Your task to perform on an android device: move an email to a new category in the gmail app Image 0: 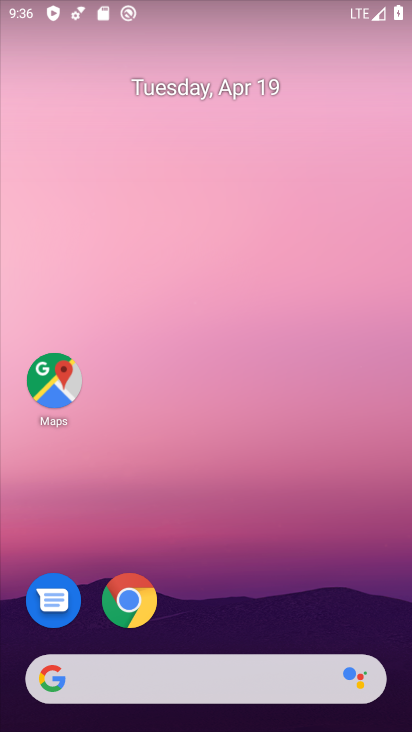
Step 0: drag from (387, 604) to (347, 117)
Your task to perform on an android device: move an email to a new category in the gmail app Image 1: 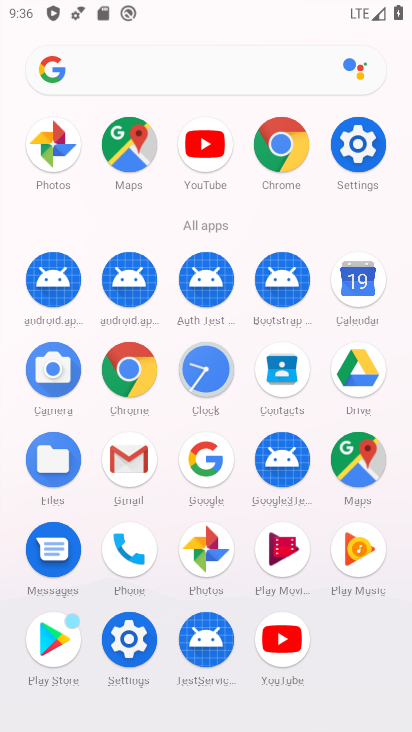
Step 1: click (138, 455)
Your task to perform on an android device: move an email to a new category in the gmail app Image 2: 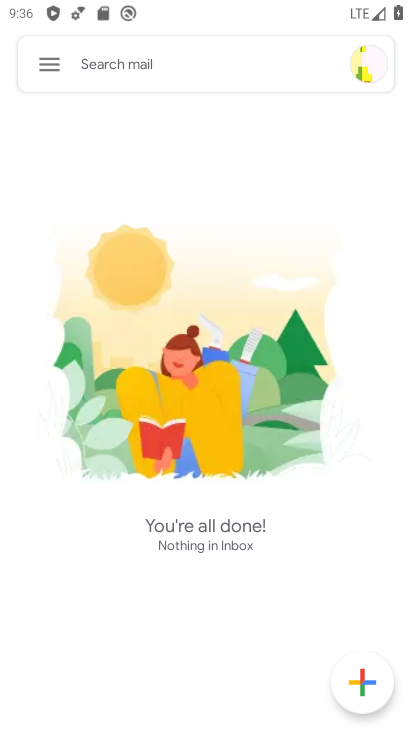
Step 2: task complete